Your task to perform on an android device: choose inbox layout in the gmail app Image 0: 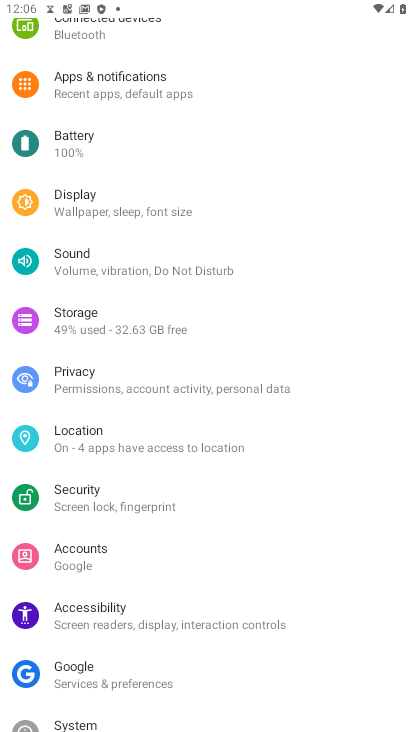
Step 0: press back button
Your task to perform on an android device: choose inbox layout in the gmail app Image 1: 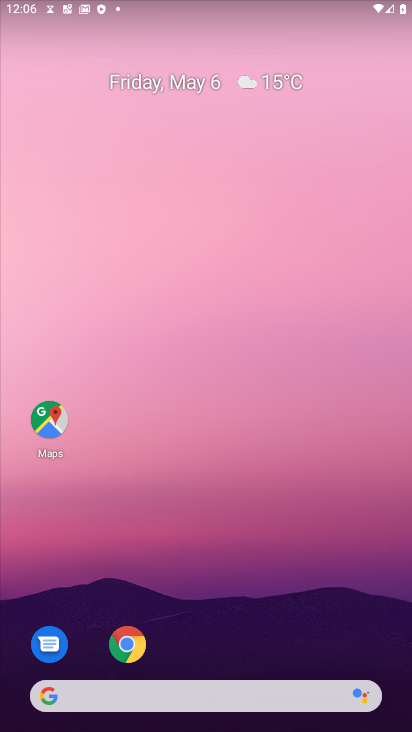
Step 1: drag from (263, 547) to (199, 14)
Your task to perform on an android device: choose inbox layout in the gmail app Image 2: 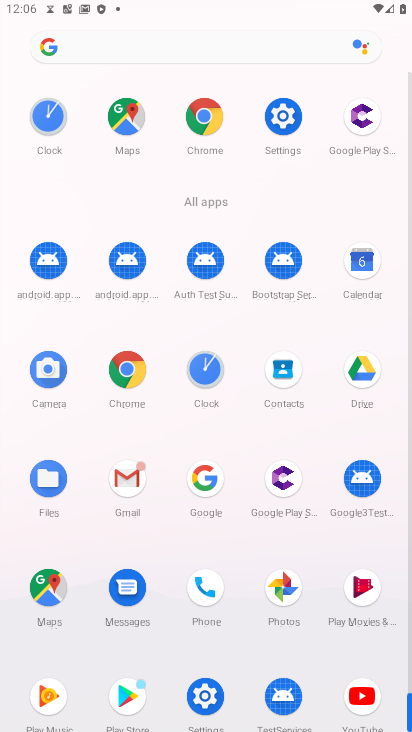
Step 2: drag from (10, 560) to (7, 253)
Your task to perform on an android device: choose inbox layout in the gmail app Image 3: 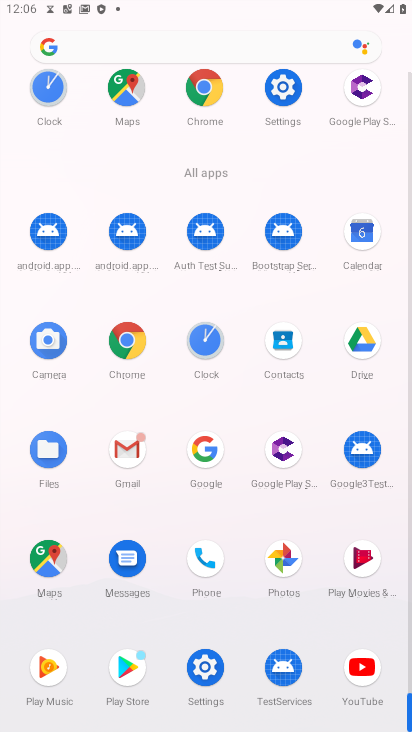
Step 3: click (126, 444)
Your task to perform on an android device: choose inbox layout in the gmail app Image 4: 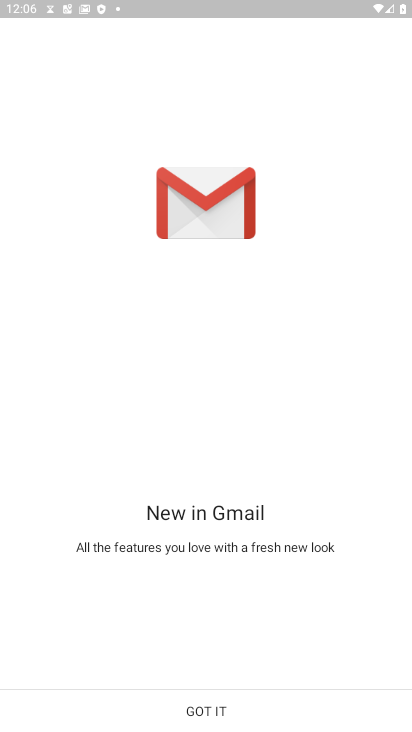
Step 4: click (214, 718)
Your task to perform on an android device: choose inbox layout in the gmail app Image 5: 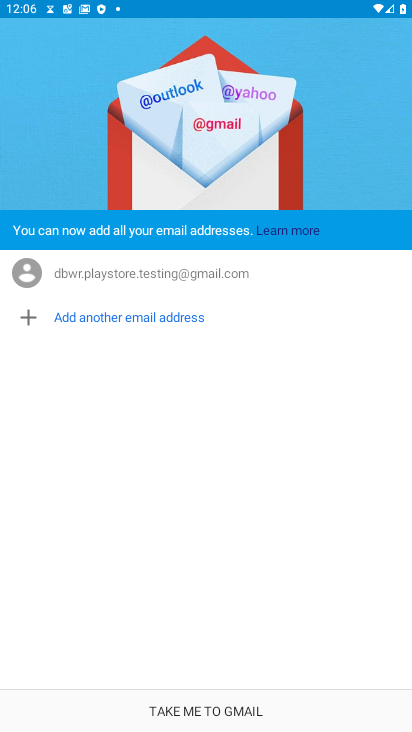
Step 5: click (213, 712)
Your task to perform on an android device: choose inbox layout in the gmail app Image 6: 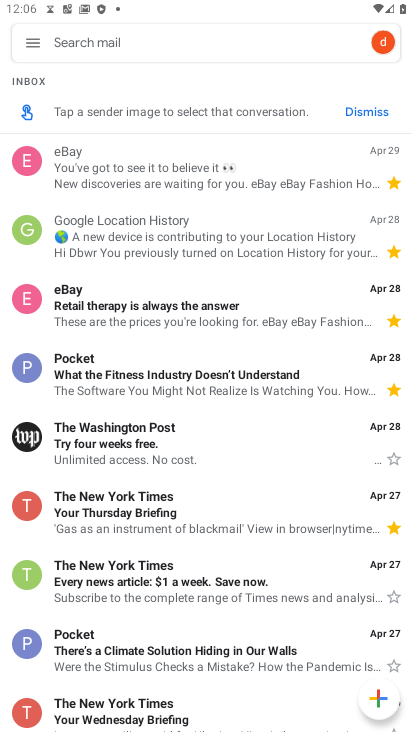
Step 6: click (29, 39)
Your task to perform on an android device: choose inbox layout in the gmail app Image 7: 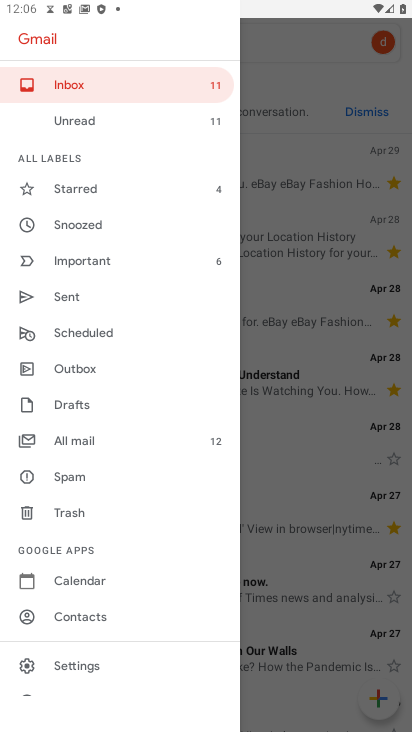
Step 7: drag from (115, 541) to (109, 87)
Your task to perform on an android device: choose inbox layout in the gmail app Image 8: 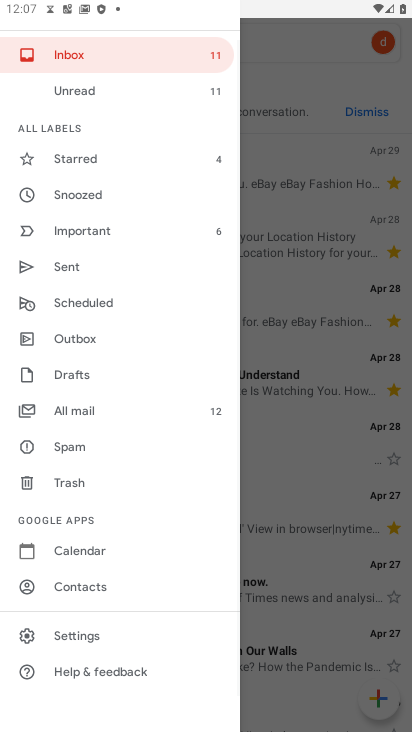
Step 8: click (65, 629)
Your task to perform on an android device: choose inbox layout in the gmail app Image 9: 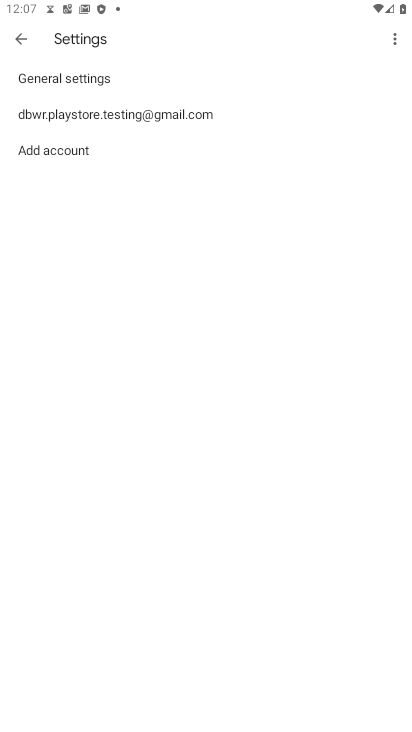
Step 9: click (114, 112)
Your task to perform on an android device: choose inbox layout in the gmail app Image 10: 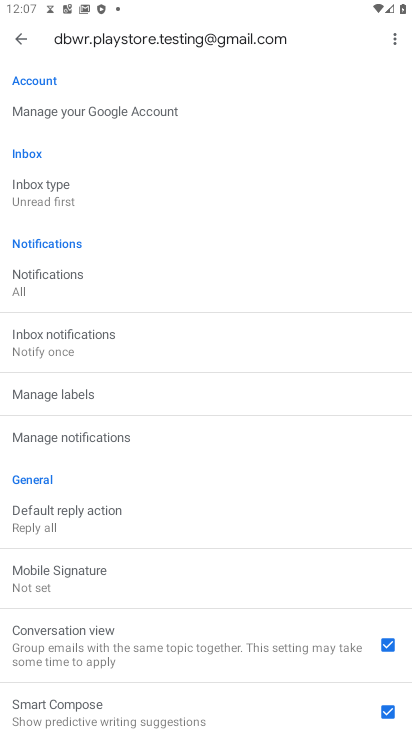
Step 10: click (77, 185)
Your task to perform on an android device: choose inbox layout in the gmail app Image 11: 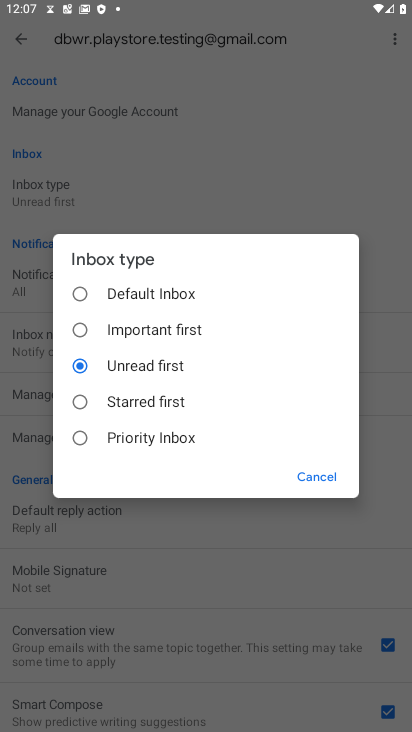
Step 11: click (141, 293)
Your task to perform on an android device: choose inbox layout in the gmail app Image 12: 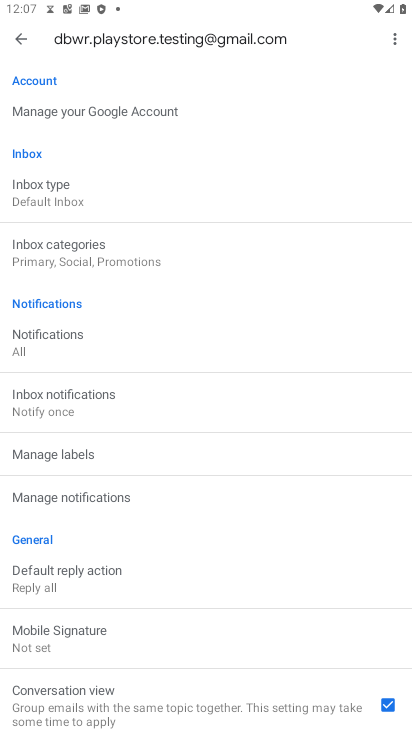
Step 12: task complete